Your task to perform on an android device: Is it going to rain today? Image 0: 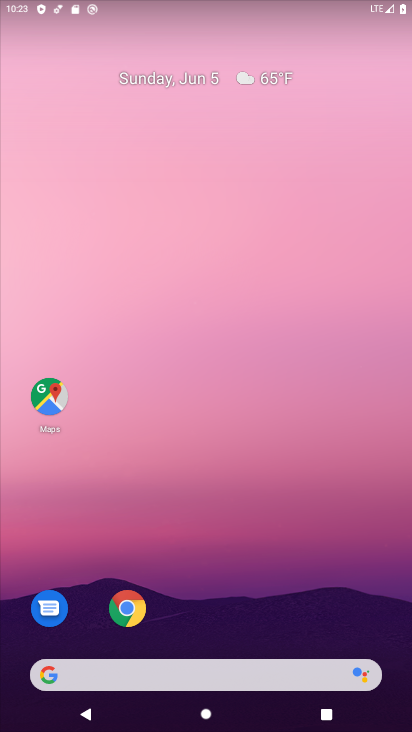
Step 0: click (264, 77)
Your task to perform on an android device: Is it going to rain today? Image 1: 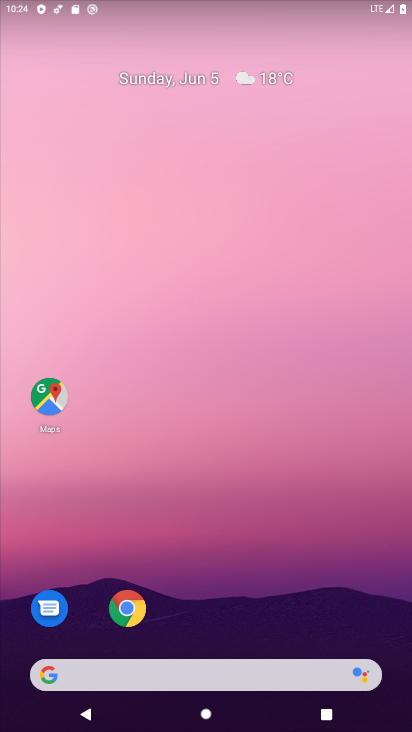
Step 1: click (271, 76)
Your task to perform on an android device: Is it going to rain today? Image 2: 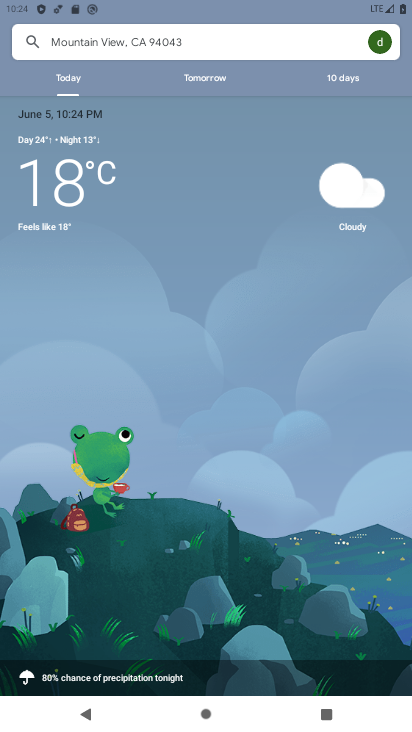
Step 2: task complete